Your task to perform on an android device: turn on wifi Image 0: 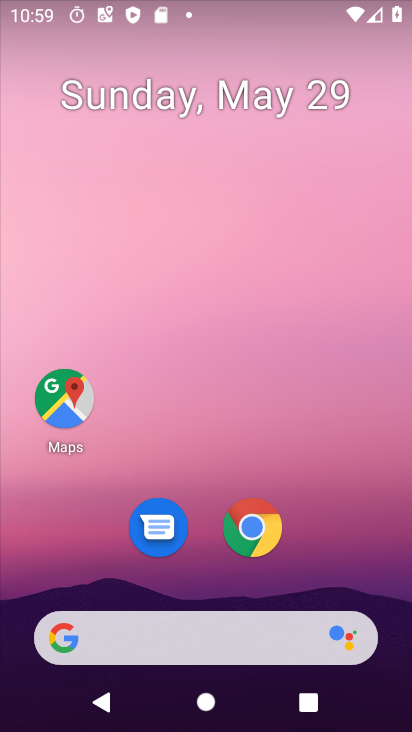
Step 0: drag from (359, 505) to (274, 91)
Your task to perform on an android device: turn on wifi Image 1: 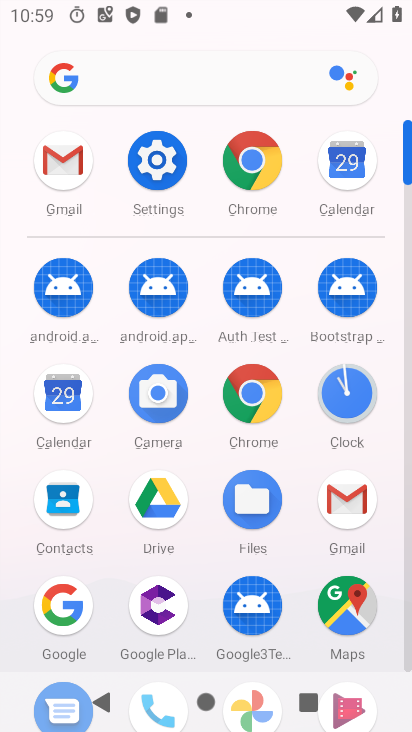
Step 1: click (164, 146)
Your task to perform on an android device: turn on wifi Image 2: 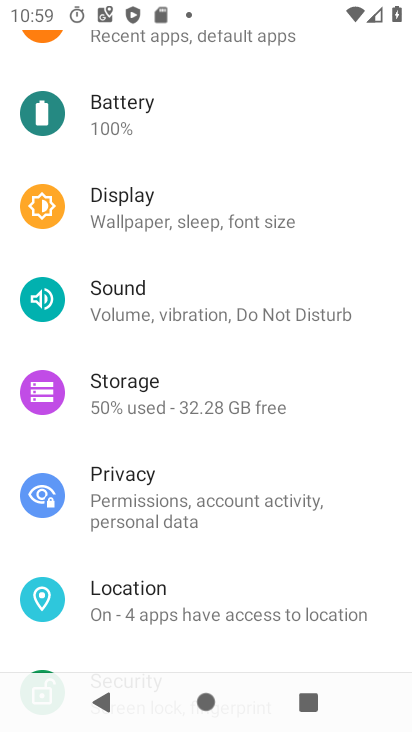
Step 2: drag from (219, 150) to (218, 639)
Your task to perform on an android device: turn on wifi Image 3: 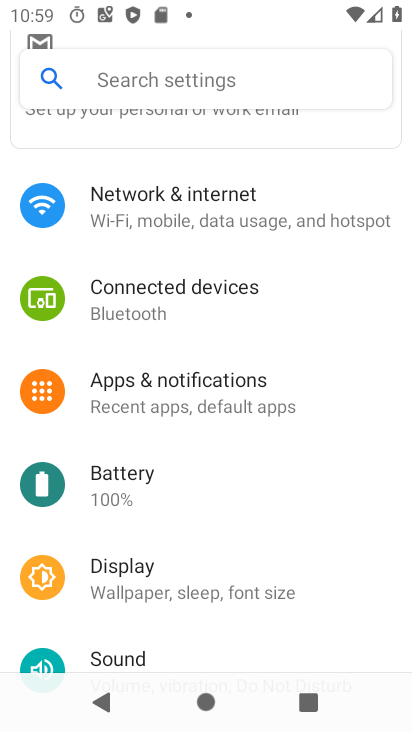
Step 3: click (193, 222)
Your task to perform on an android device: turn on wifi Image 4: 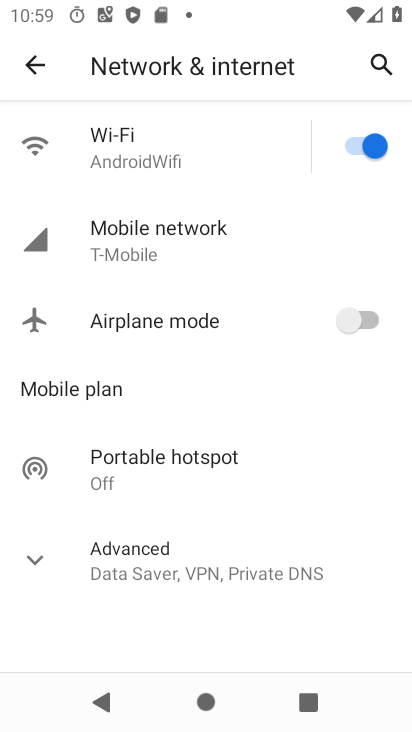
Step 4: task complete